Your task to perform on an android device: show emergency info Image 0: 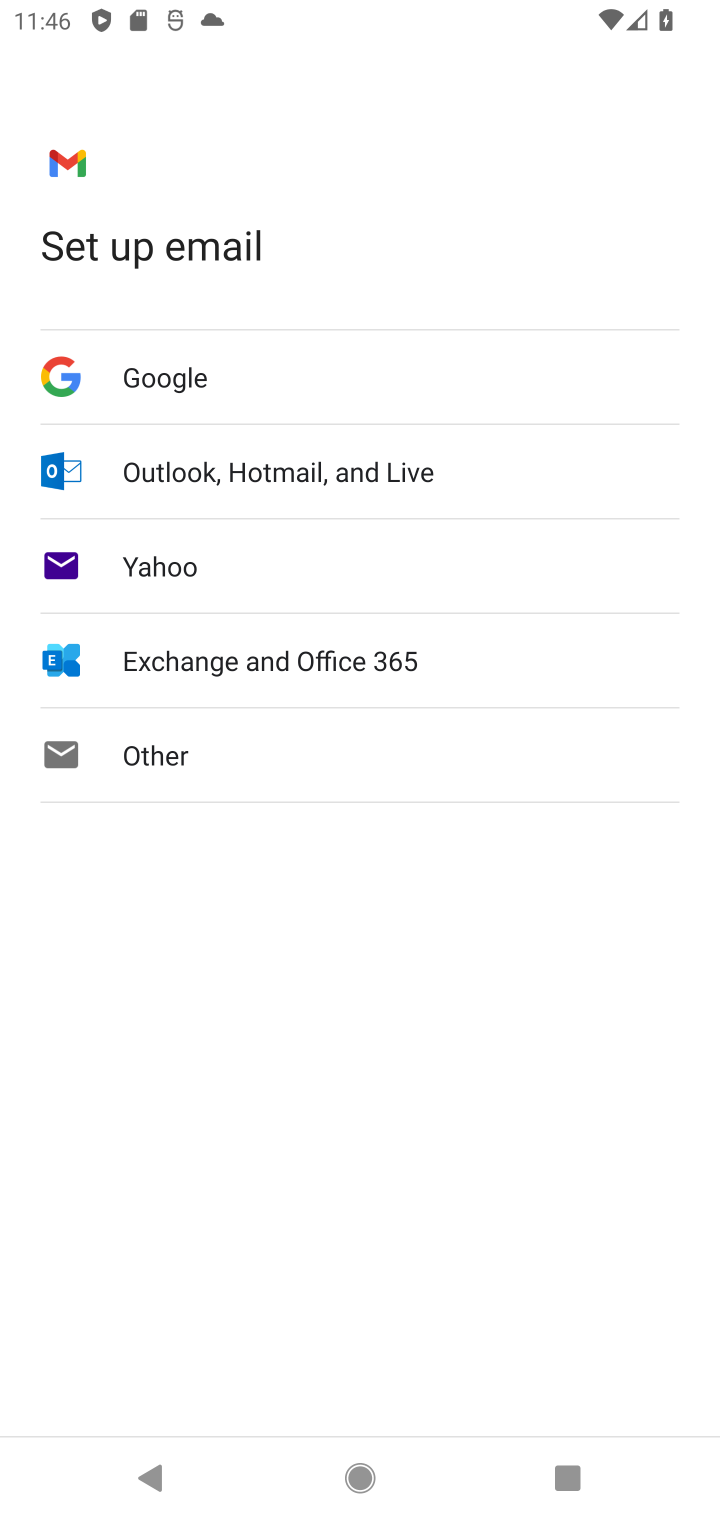
Step 0: press home button
Your task to perform on an android device: show emergency info Image 1: 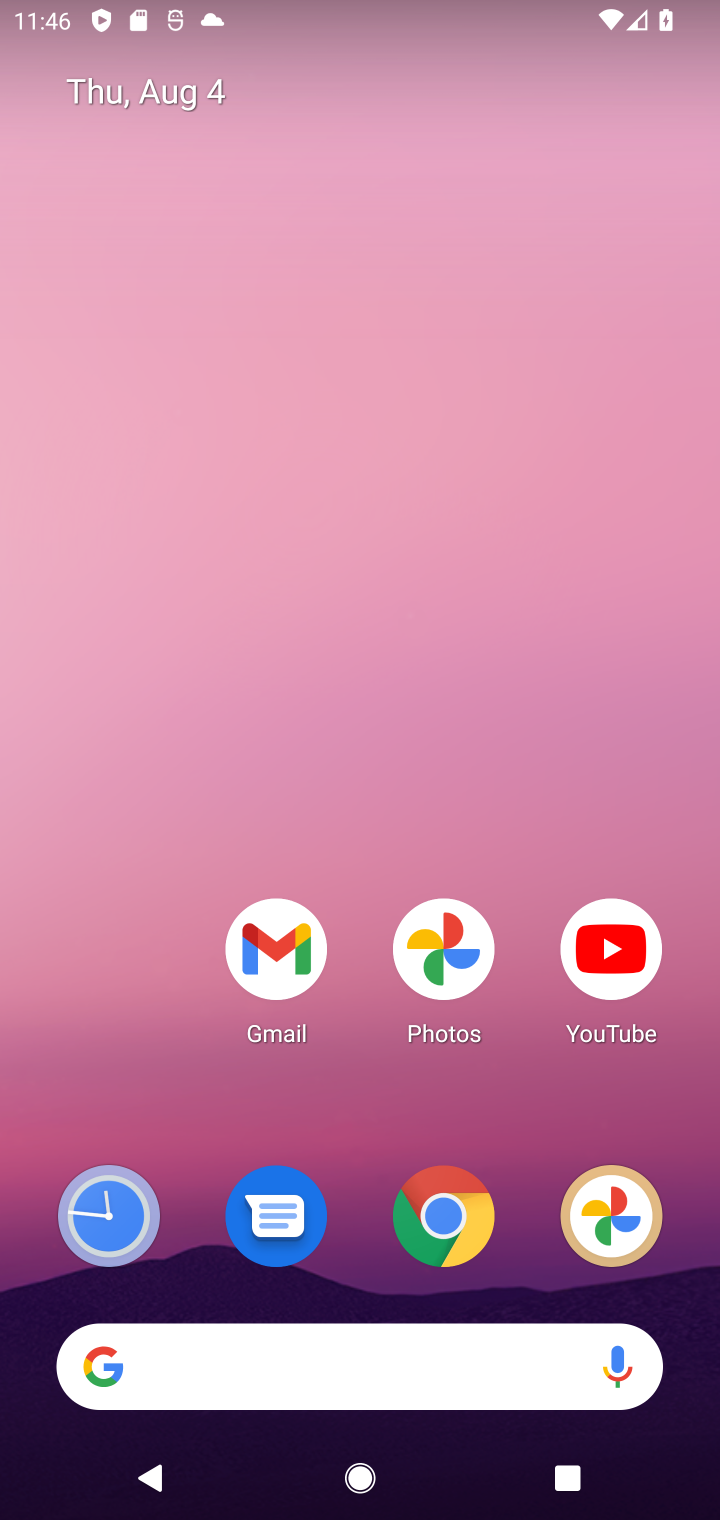
Step 1: drag from (327, 1397) to (391, 239)
Your task to perform on an android device: show emergency info Image 2: 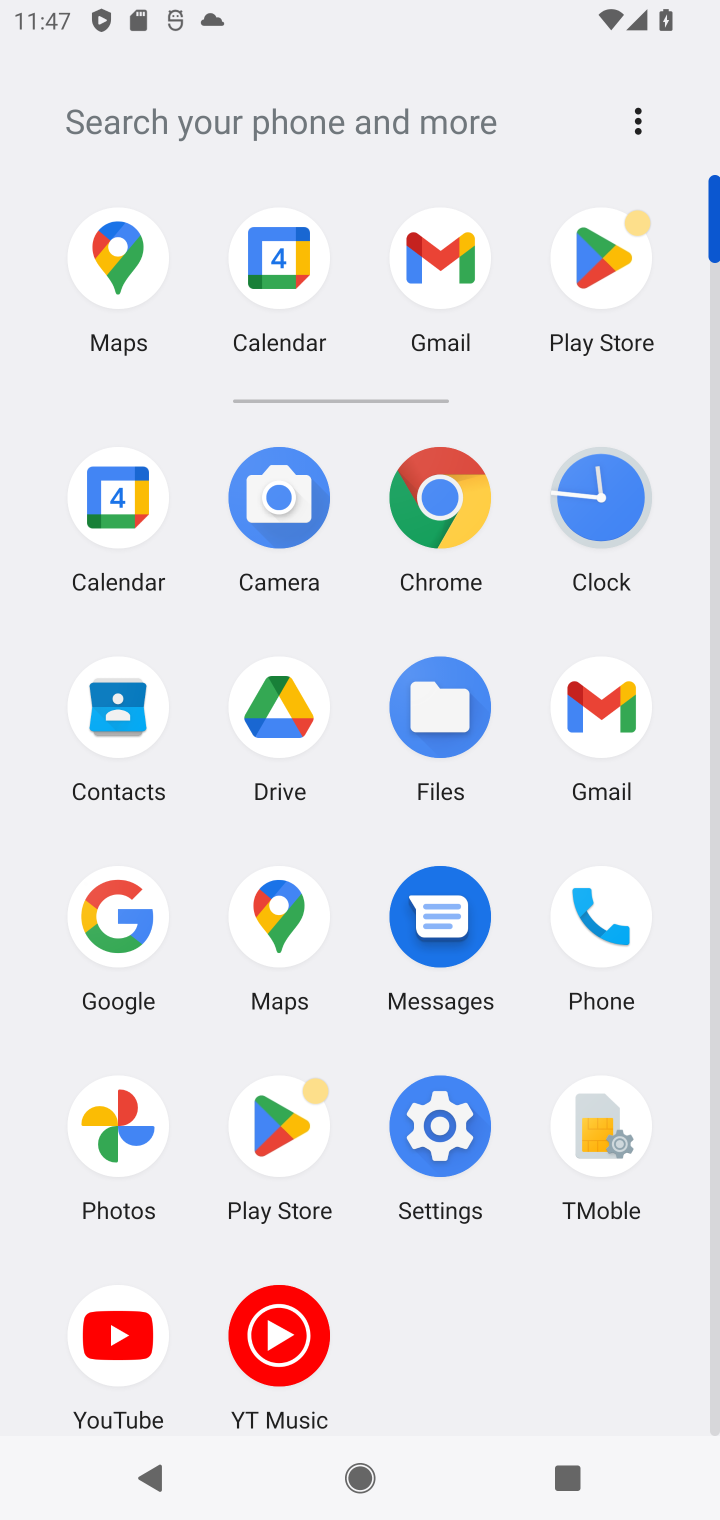
Step 2: click (439, 1129)
Your task to perform on an android device: show emergency info Image 3: 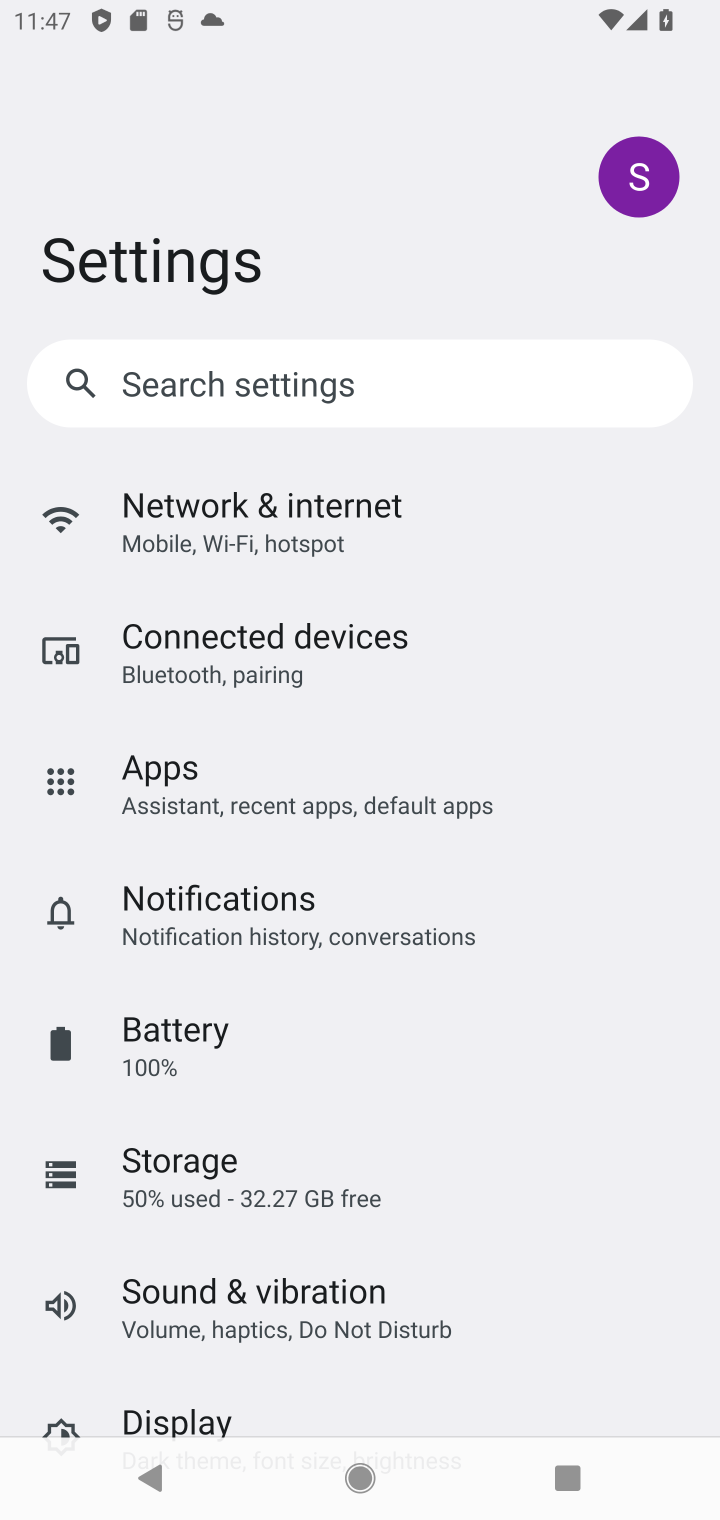
Step 3: drag from (285, 1226) to (391, 944)
Your task to perform on an android device: show emergency info Image 4: 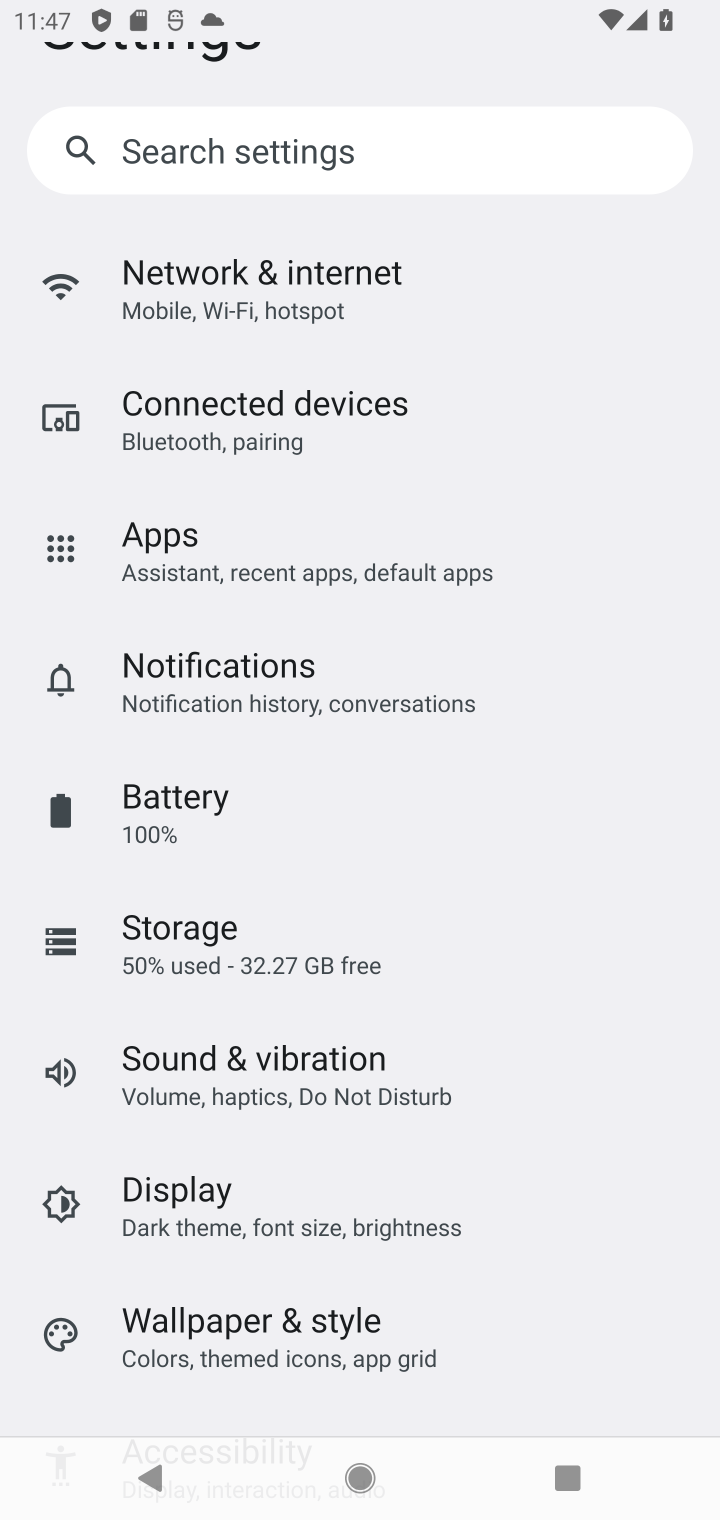
Step 4: drag from (295, 1175) to (406, 898)
Your task to perform on an android device: show emergency info Image 5: 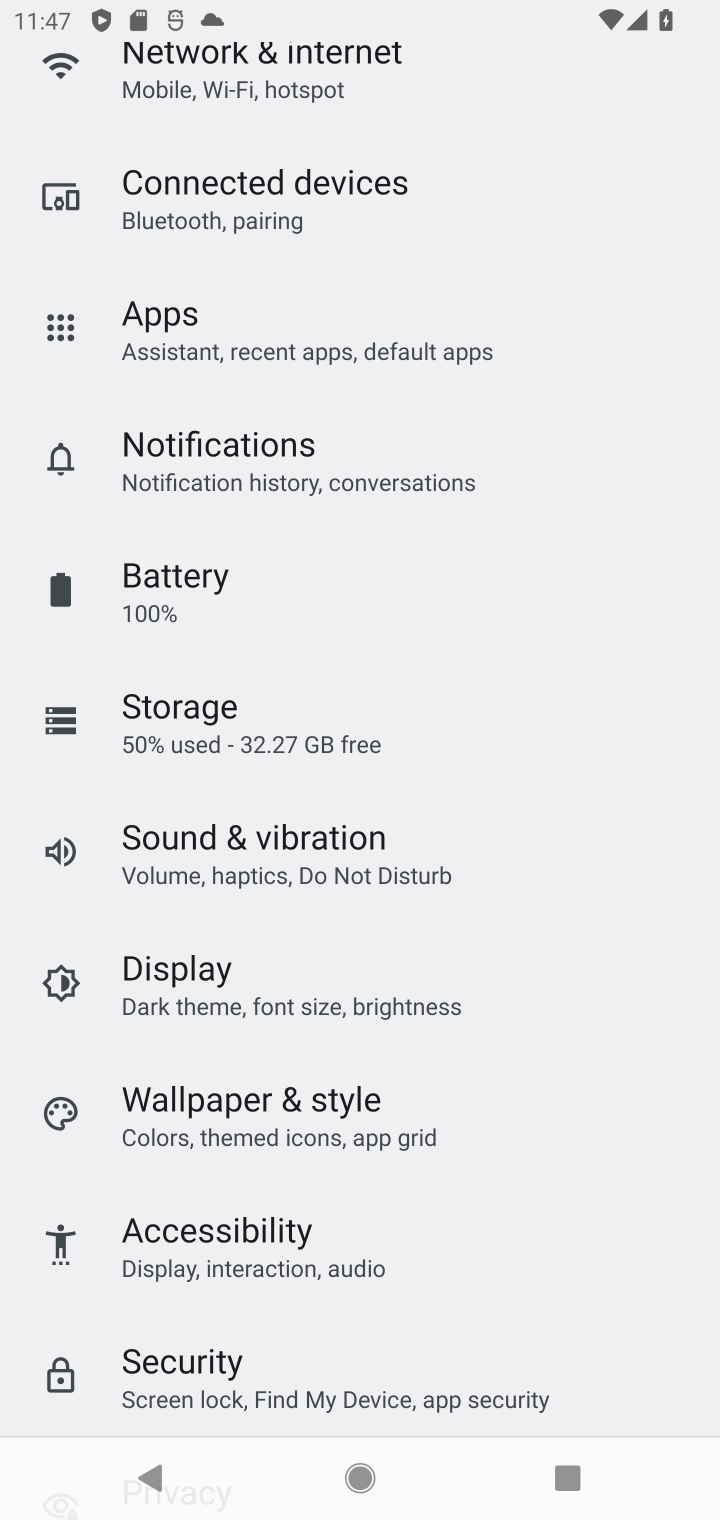
Step 5: drag from (251, 1212) to (360, 866)
Your task to perform on an android device: show emergency info Image 6: 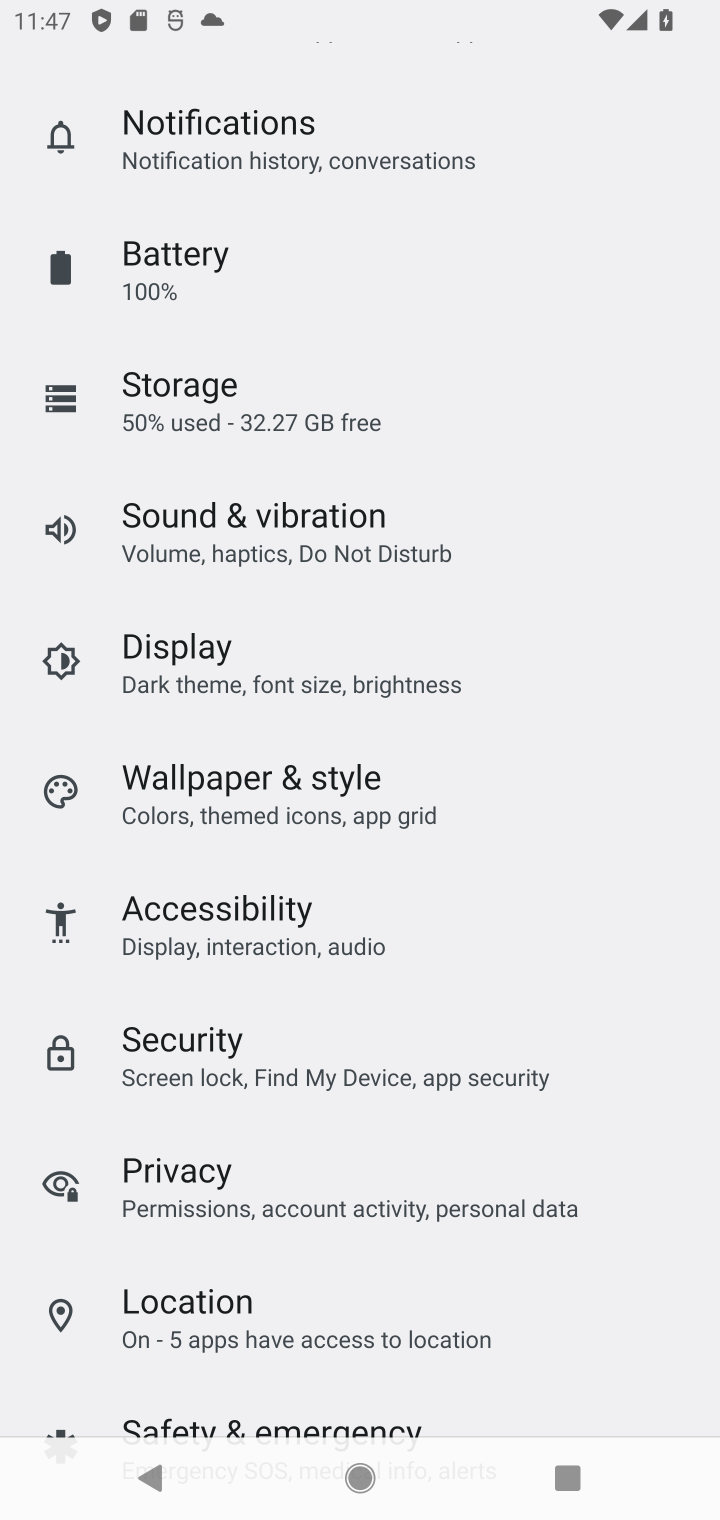
Step 6: drag from (274, 1288) to (423, 988)
Your task to perform on an android device: show emergency info Image 7: 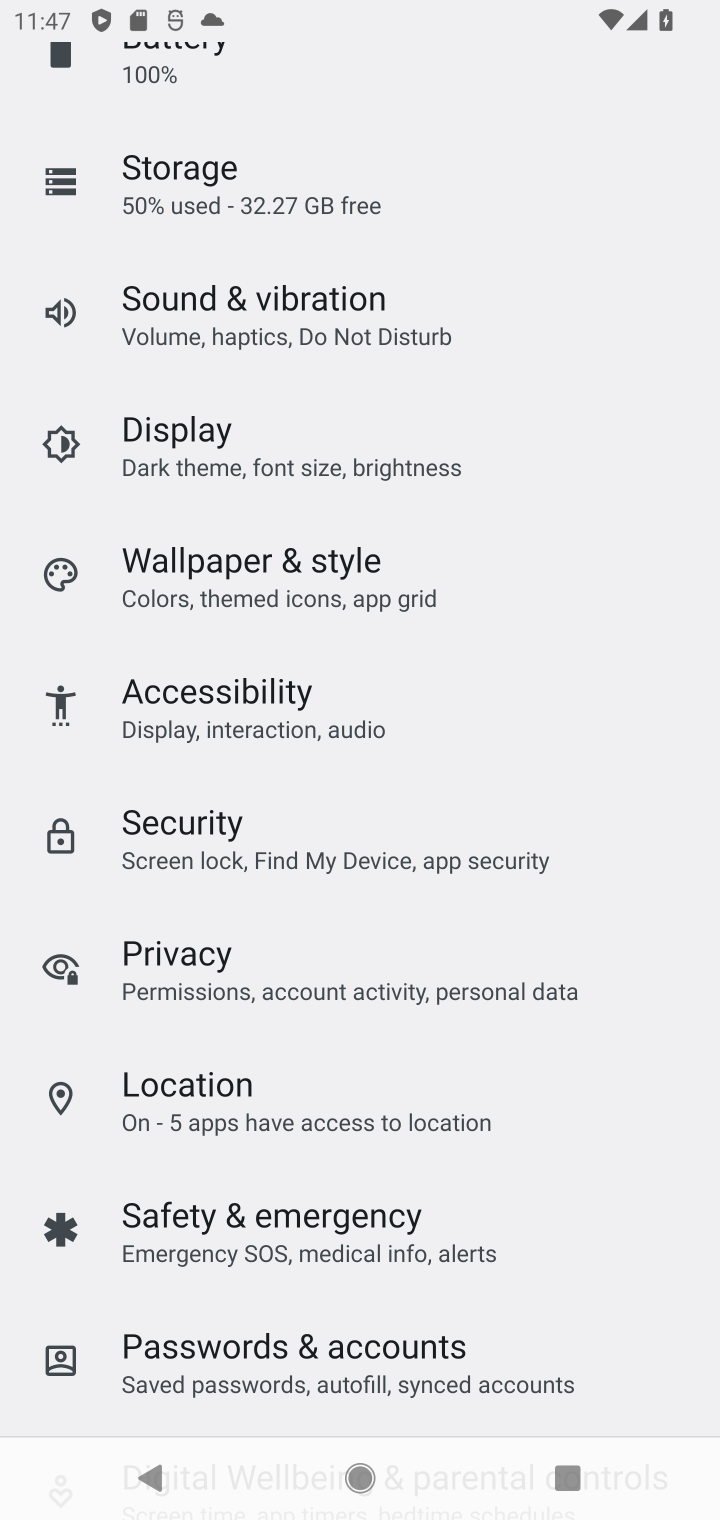
Step 7: drag from (237, 1194) to (337, 902)
Your task to perform on an android device: show emergency info Image 8: 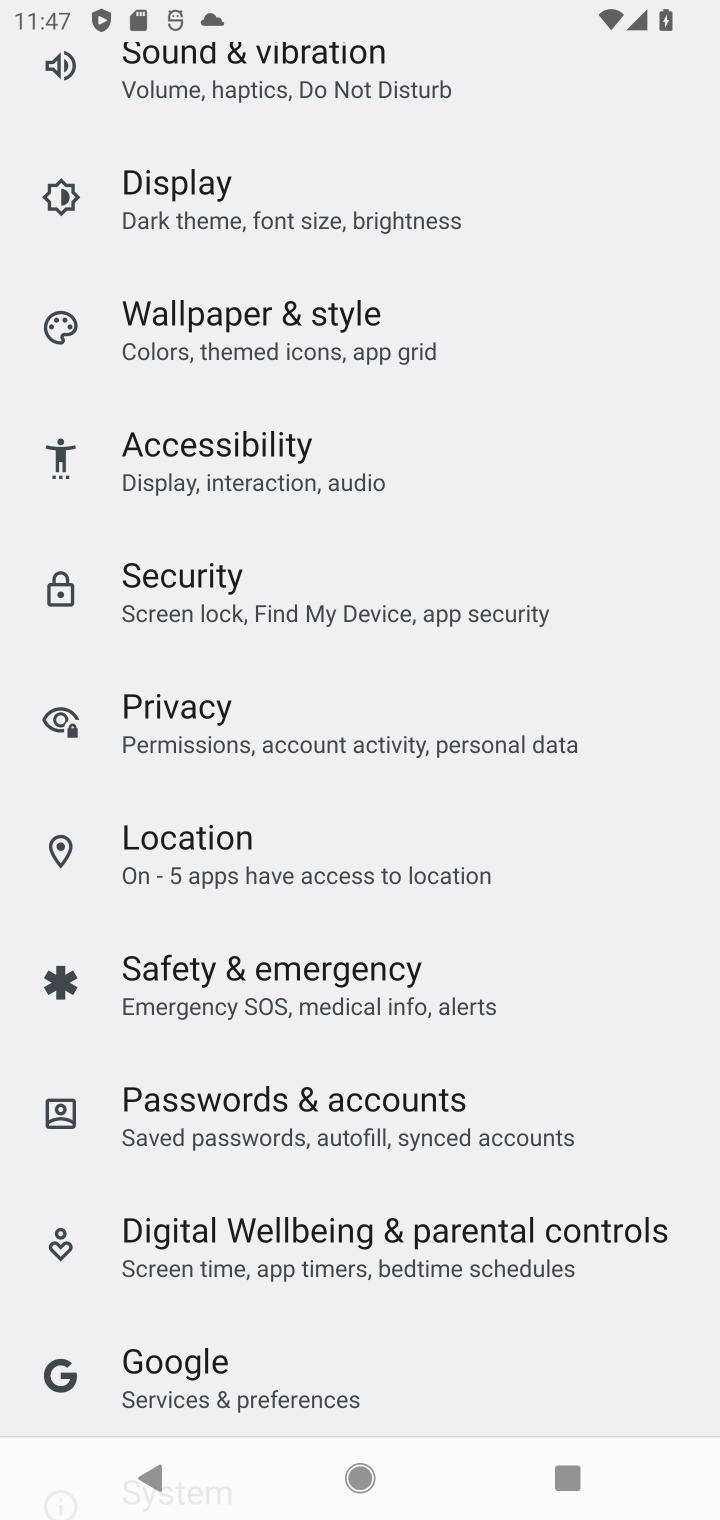
Step 8: drag from (271, 1324) to (562, 932)
Your task to perform on an android device: show emergency info Image 9: 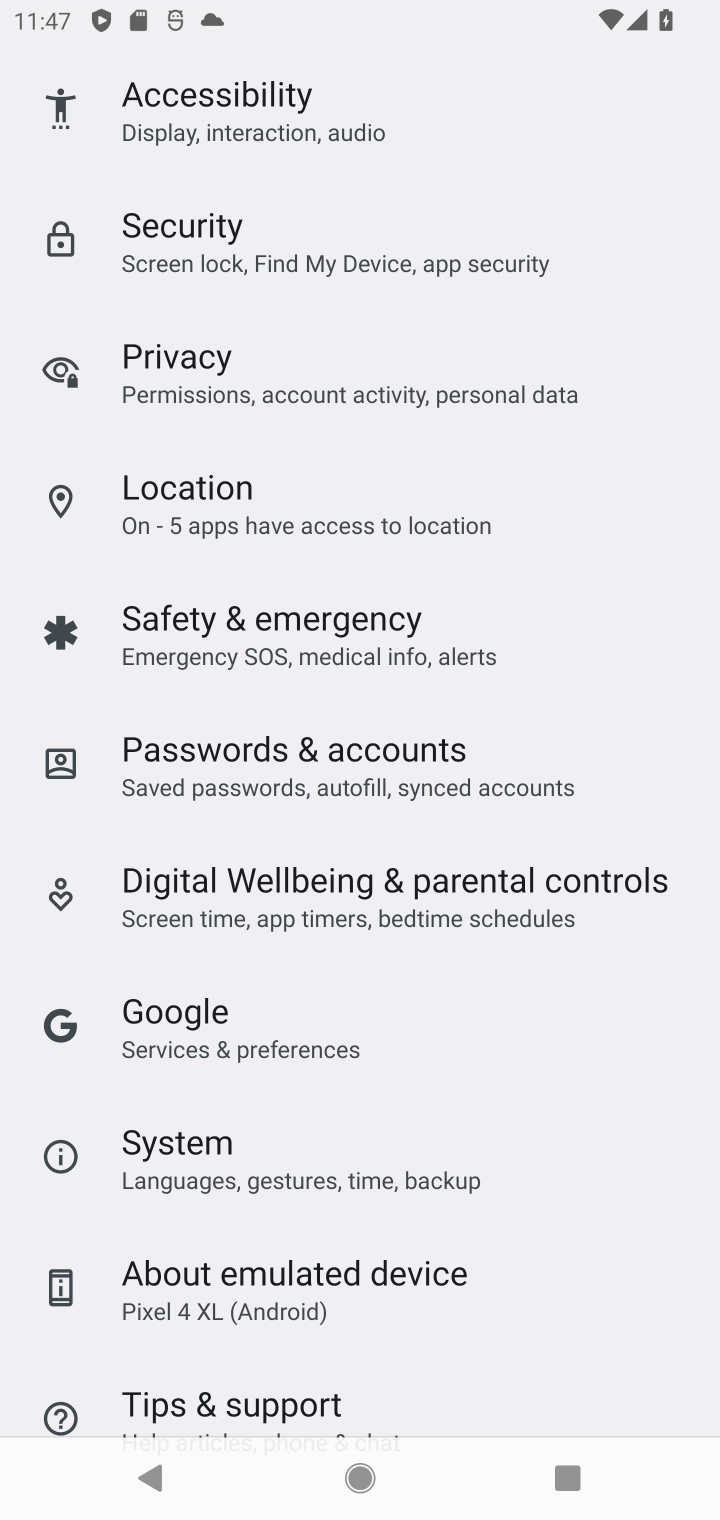
Step 9: click (355, 628)
Your task to perform on an android device: show emergency info Image 10: 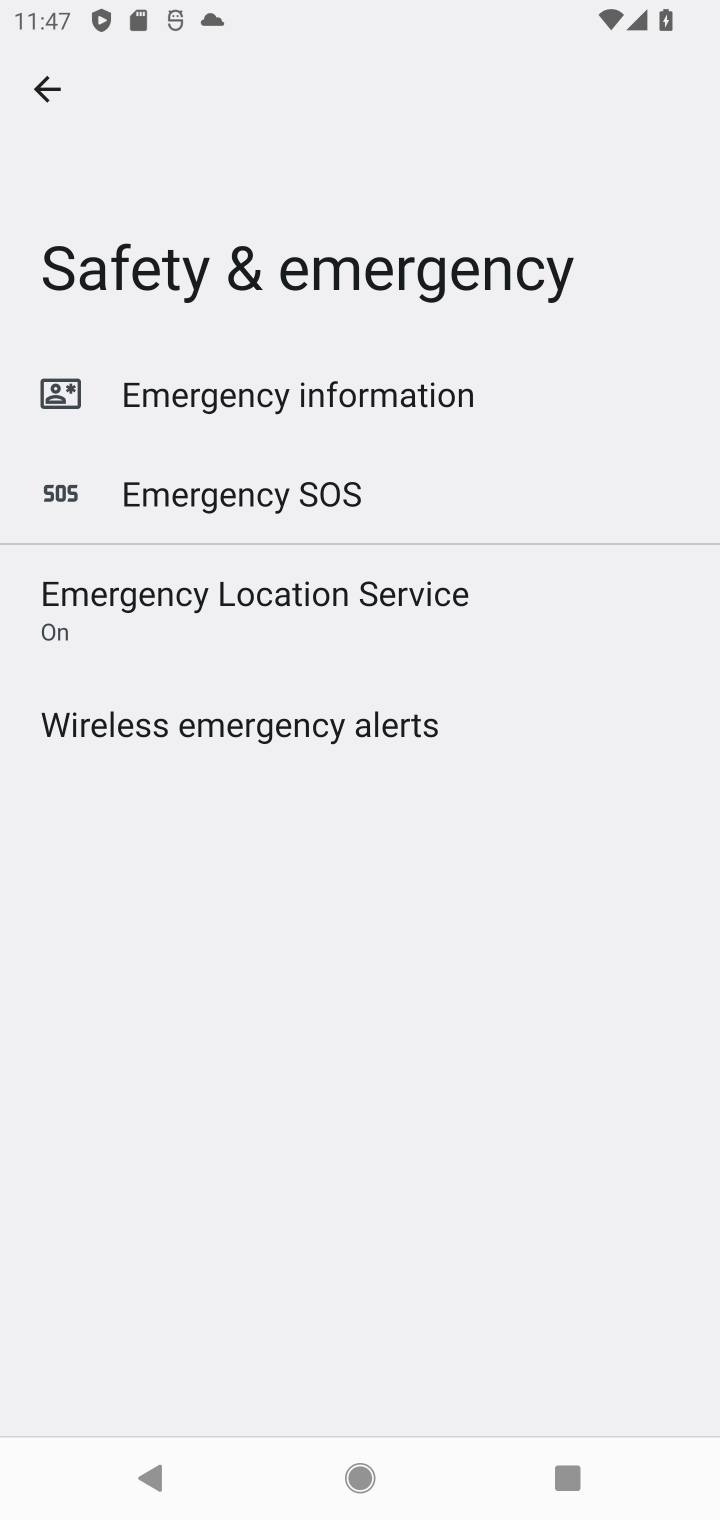
Step 10: click (351, 394)
Your task to perform on an android device: show emergency info Image 11: 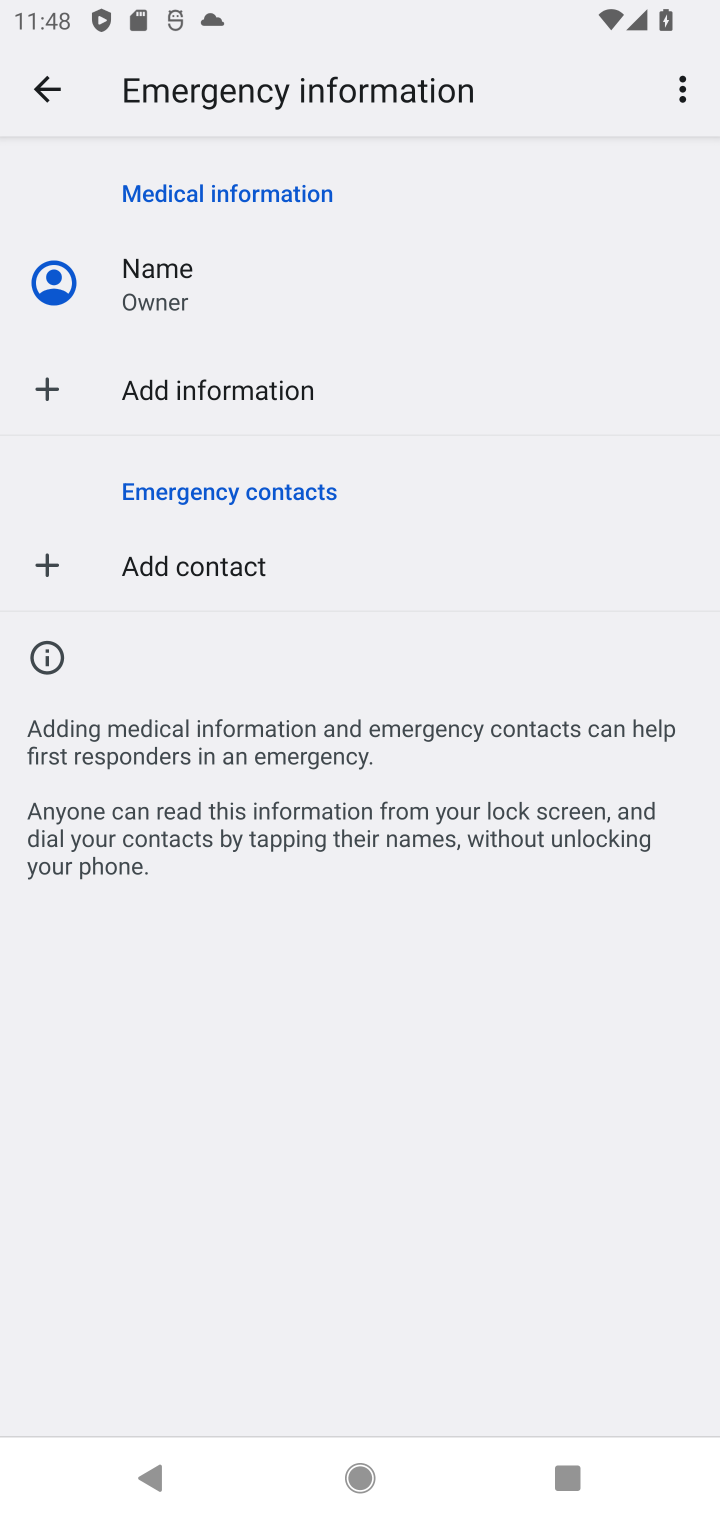
Step 11: task complete